Your task to perform on an android device: turn on showing notifications on the lock screen Image 0: 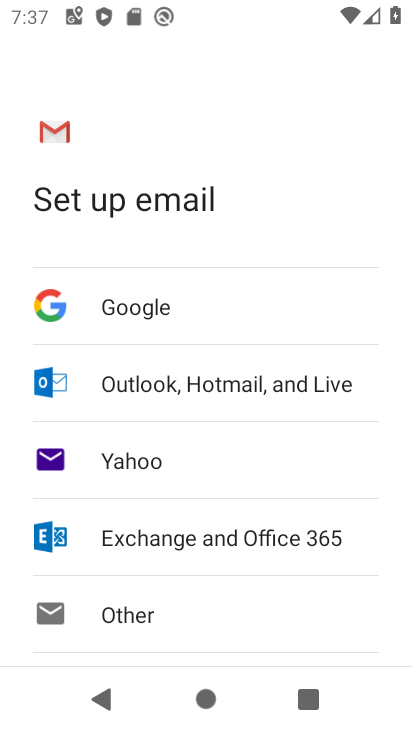
Step 0: press home button
Your task to perform on an android device: turn on showing notifications on the lock screen Image 1: 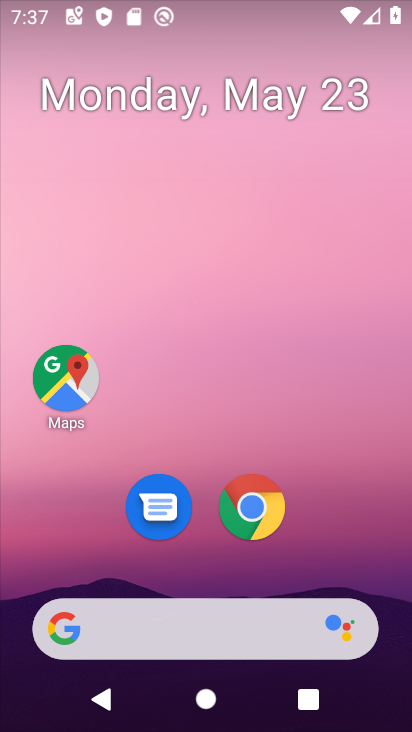
Step 1: drag from (389, 529) to (358, 158)
Your task to perform on an android device: turn on showing notifications on the lock screen Image 2: 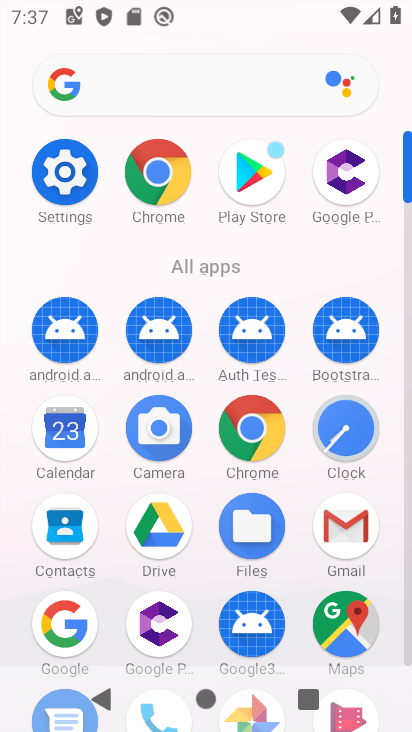
Step 2: click (35, 156)
Your task to perform on an android device: turn on showing notifications on the lock screen Image 3: 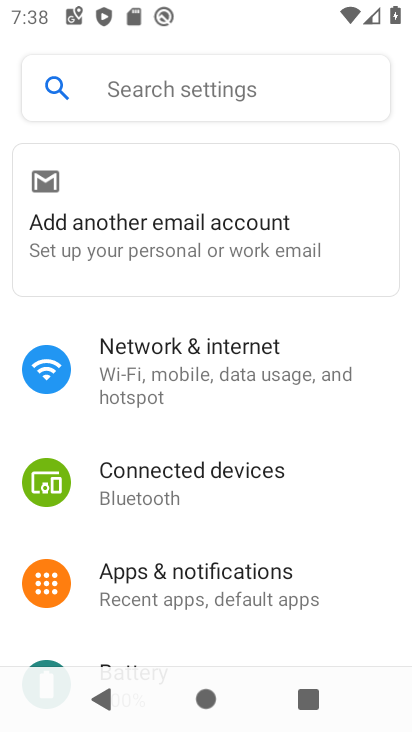
Step 3: click (227, 353)
Your task to perform on an android device: turn on showing notifications on the lock screen Image 4: 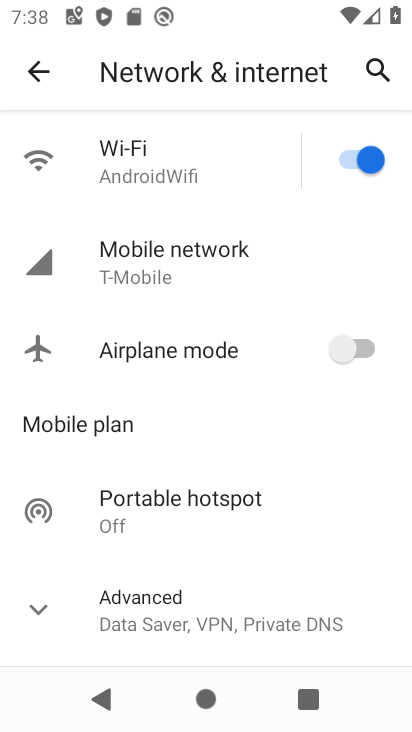
Step 4: click (19, 65)
Your task to perform on an android device: turn on showing notifications on the lock screen Image 5: 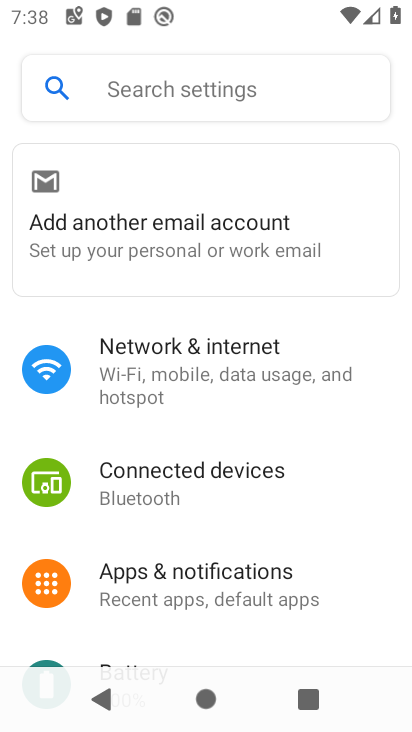
Step 5: click (220, 580)
Your task to perform on an android device: turn on showing notifications on the lock screen Image 6: 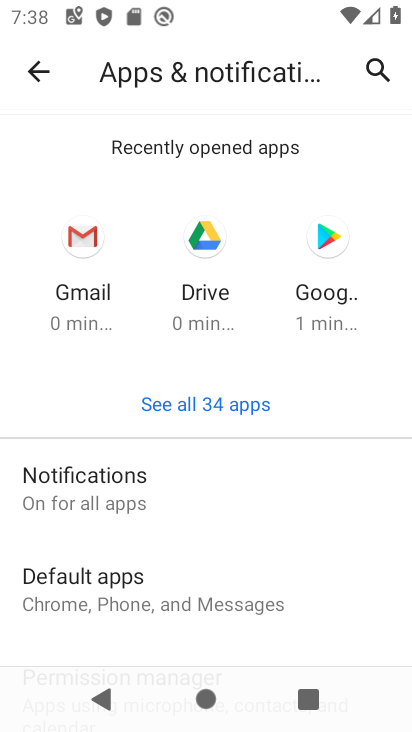
Step 6: click (162, 472)
Your task to perform on an android device: turn on showing notifications on the lock screen Image 7: 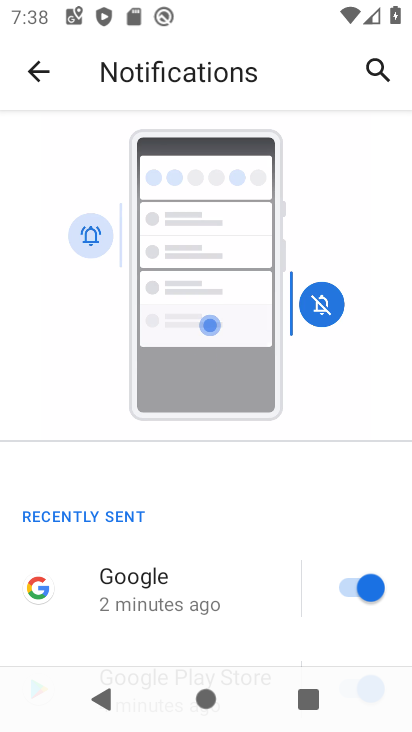
Step 7: drag from (242, 640) to (216, 290)
Your task to perform on an android device: turn on showing notifications on the lock screen Image 8: 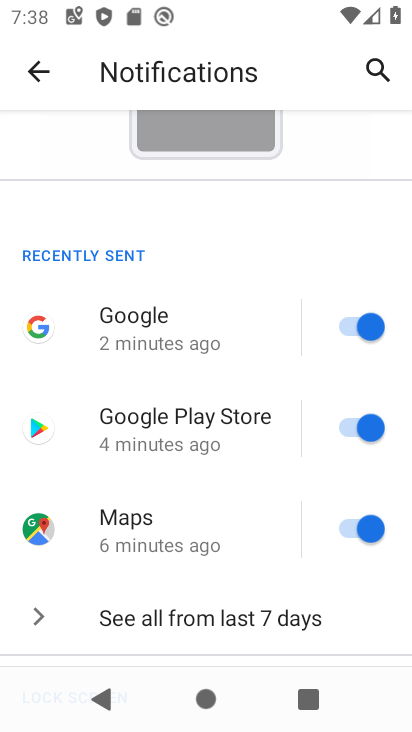
Step 8: drag from (168, 570) to (172, 249)
Your task to perform on an android device: turn on showing notifications on the lock screen Image 9: 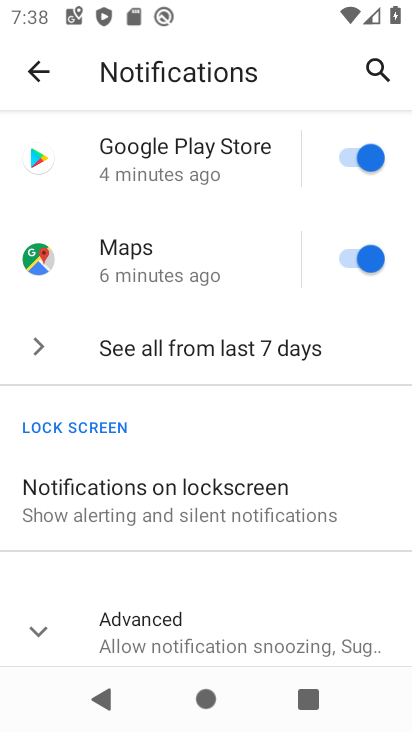
Step 9: click (140, 509)
Your task to perform on an android device: turn on showing notifications on the lock screen Image 10: 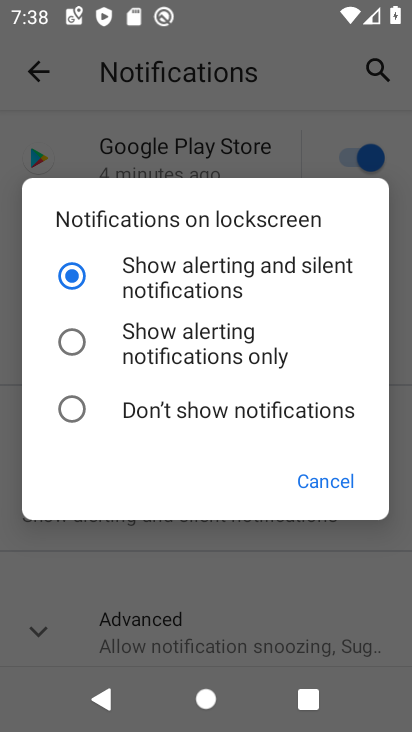
Step 10: task complete